Your task to perform on an android device: turn off javascript in the chrome app Image 0: 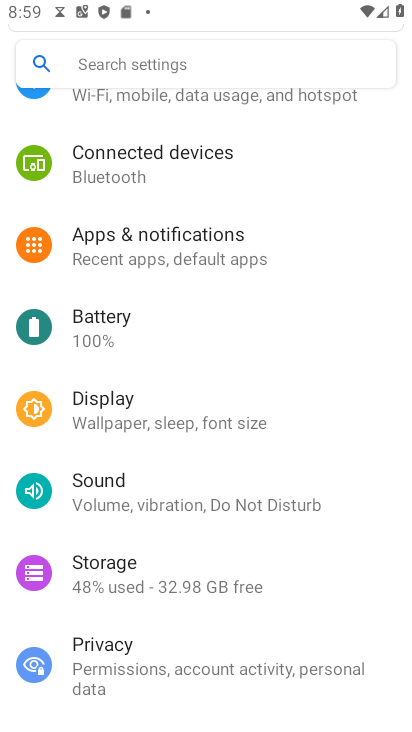
Step 0: press home button
Your task to perform on an android device: turn off javascript in the chrome app Image 1: 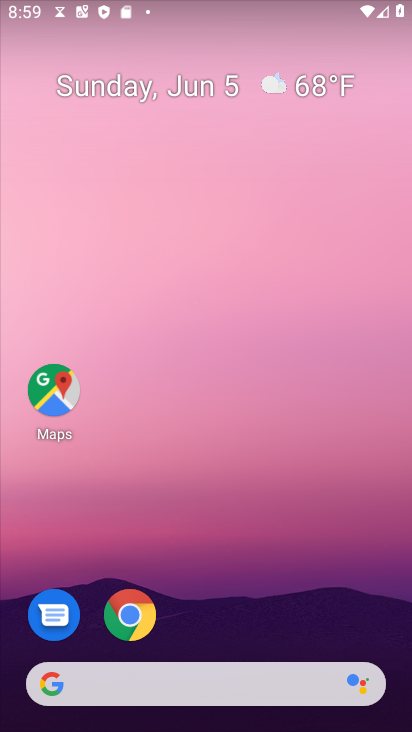
Step 1: click (147, 624)
Your task to perform on an android device: turn off javascript in the chrome app Image 2: 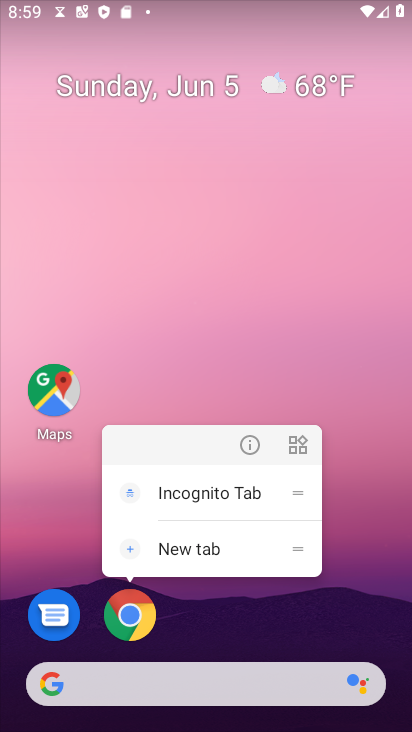
Step 2: click (134, 626)
Your task to perform on an android device: turn off javascript in the chrome app Image 3: 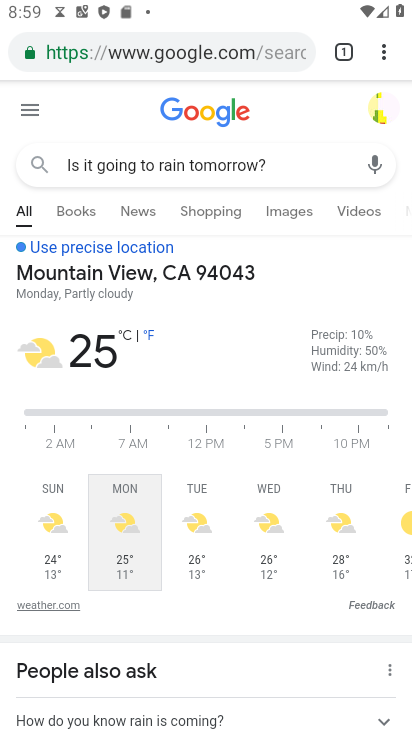
Step 3: drag from (386, 47) to (224, 579)
Your task to perform on an android device: turn off javascript in the chrome app Image 4: 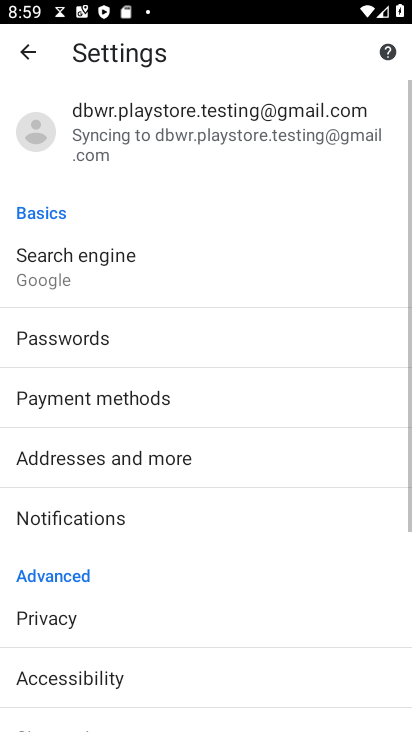
Step 4: drag from (111, 594) to (134, 263)
Your task to perform on an android device: turn off javascript in the chrome app Image 5: 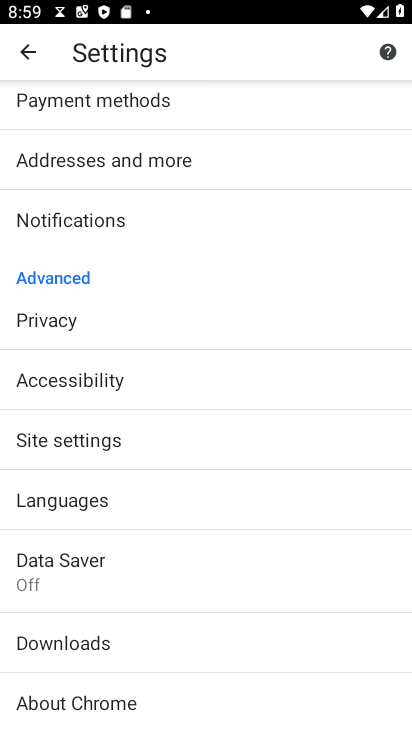
Step 5: click (65, 456)
Your task to perform on an android device: turn off javascript in the chrome app Image 6: 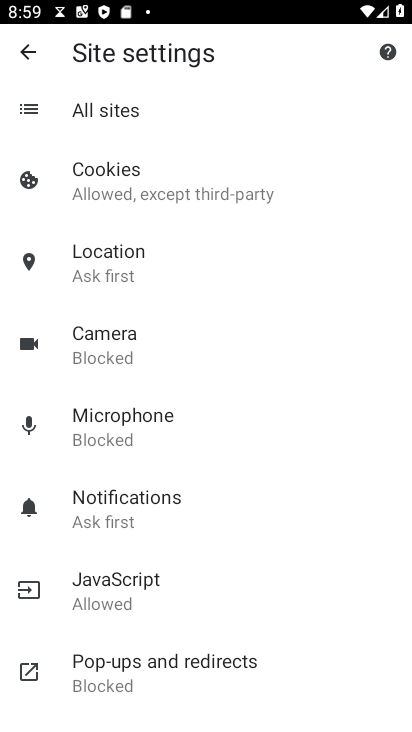
Step 6: click (132, 583)
Your task to perform on an android device: turn off javascript in the chrome app Image 7: 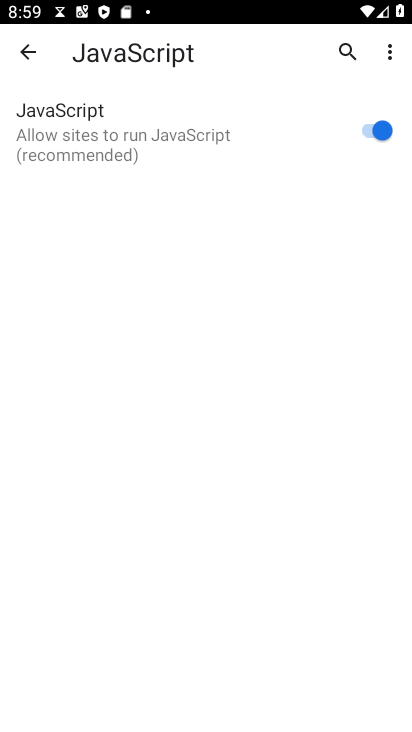
Step 7: click (375, 139)
Your task to perform on an android device: turn off javascript in the chrome app Image 8: 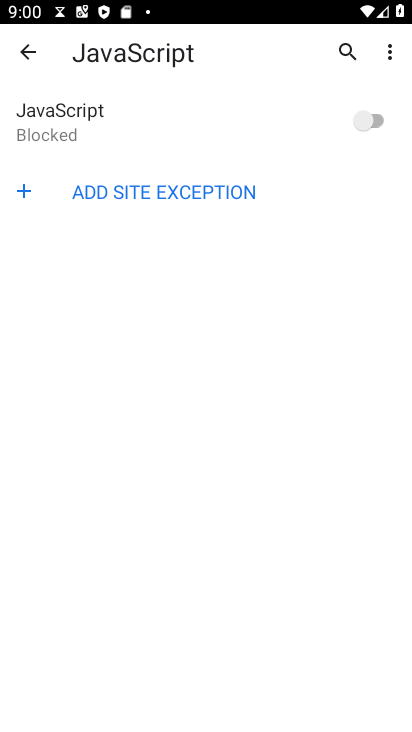
Step 8: task complete